Your task to perform on an android device: add a label to a message in the gmail app Image 0: 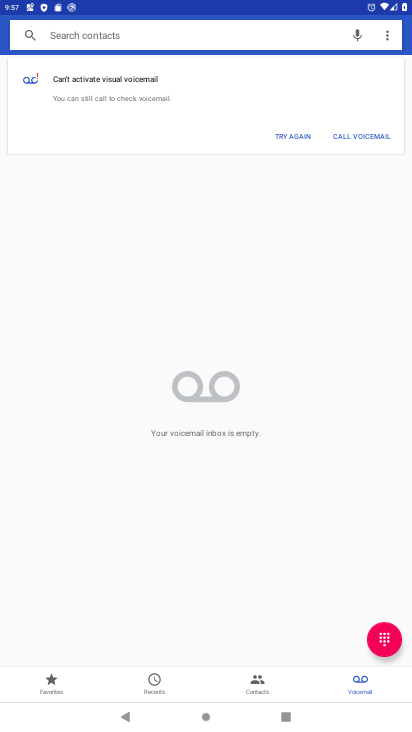
Step 0: press home button
Your task to perform on an android device: add a label to a message in the gmail app Image 1: 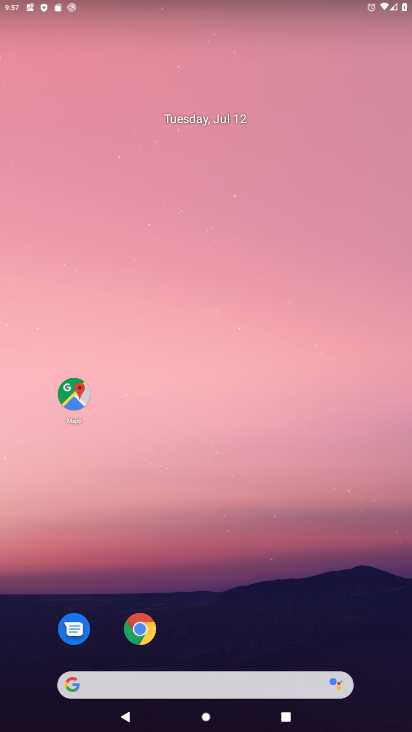
Step 1: drag from (367, 649) to (287, 20)
Your task to perform on an android device: add a label to a message in the gmail app Image 2: 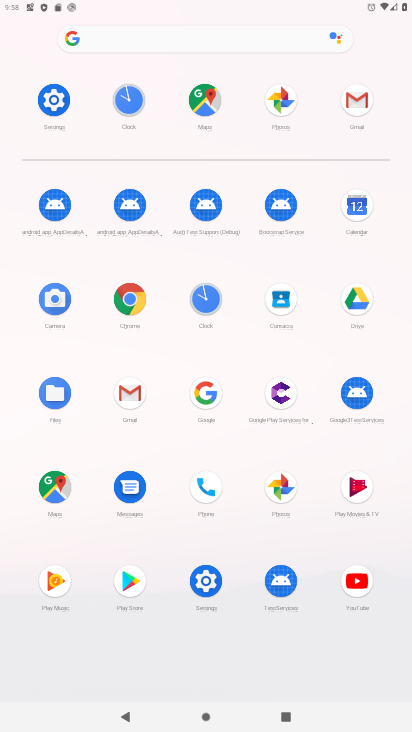
Step 2: click (128, 392)
Your task to perform on an android device: add a label to a message in the gmail app Image 3: 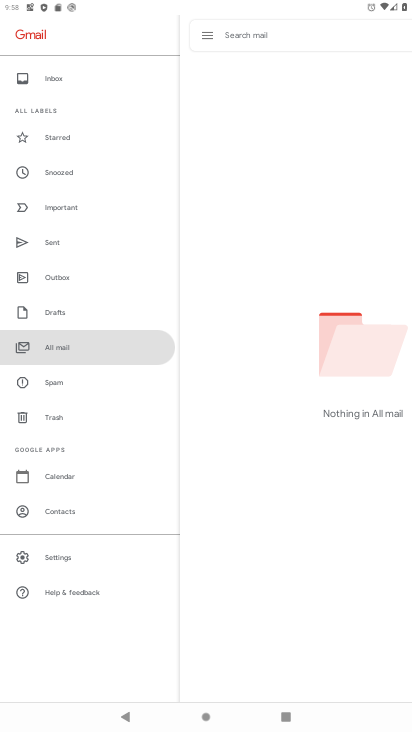
Step 3: click (101, 356)
Your task to perform on an android device: add a label to a message in the gmail app Image 4: 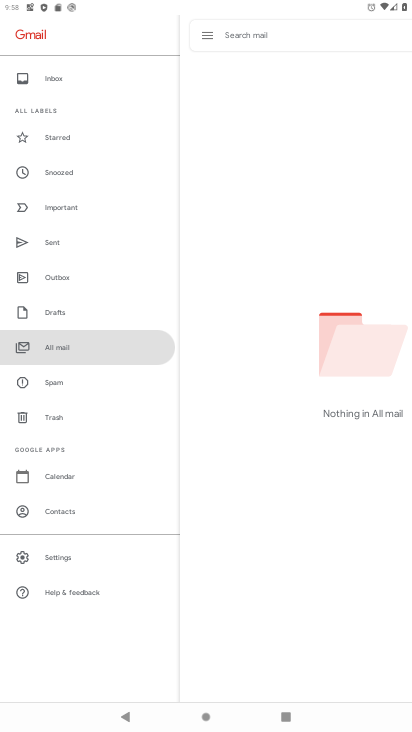
Step 4: press home button
Your task to perform on an android device: add a label to a message in the gmail app Image 5: 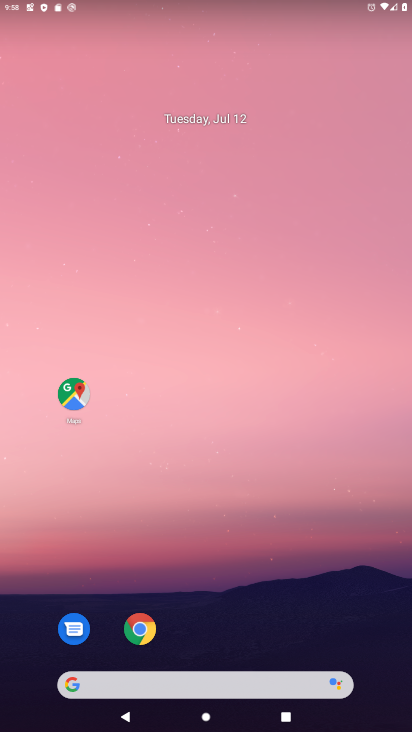
Step 5: drag from (372, 625) to (346, 56)
Your task to perform on an android device: add a label to a message in the gmail app Image 6: 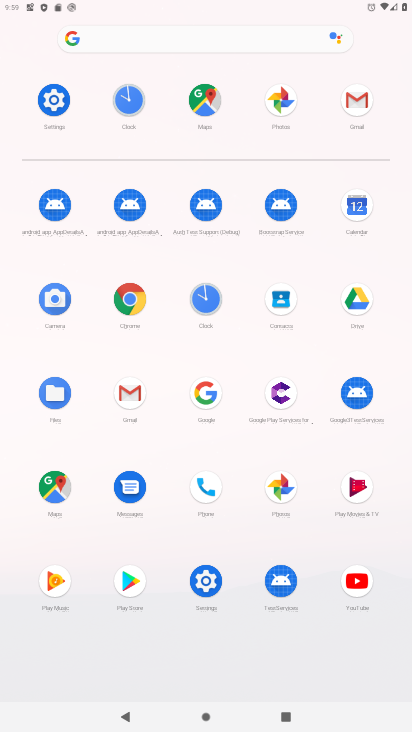
Step 6: click (129, 394)
Your task to perform on an android device: add a label to a message in the gmail app Image 7: 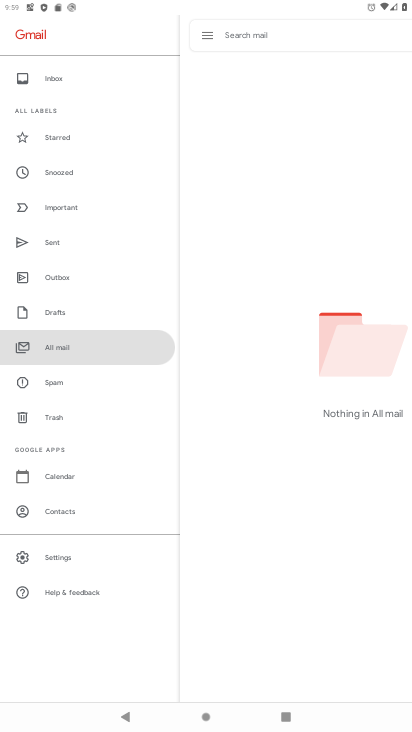
Step 7: task complete